Your task to perform on an android device: empty trash in google photos Image 0: 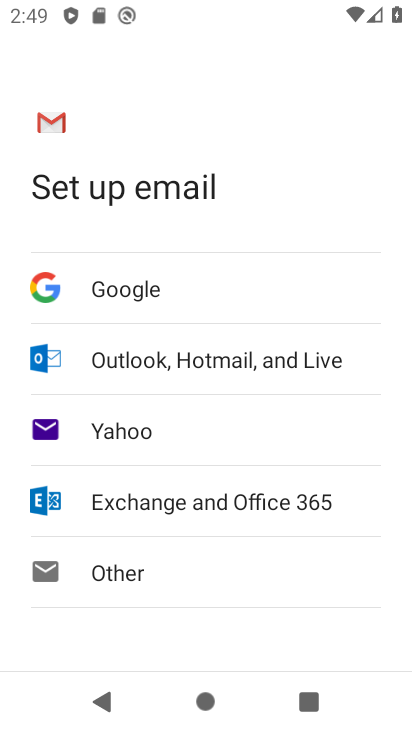
Step 0: press home button
Your task to perform on an android device: empty trash in google photos Image 1: 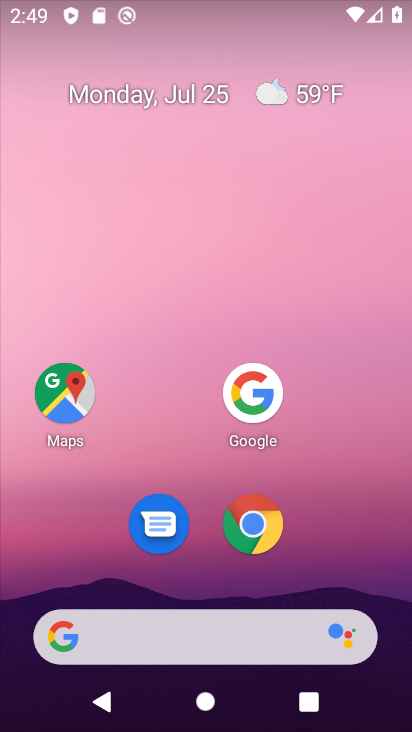
Step 1: drag from (227, 627) to (324, 202)
Your task to perform on an android device: empty trash in google photos Image 2: 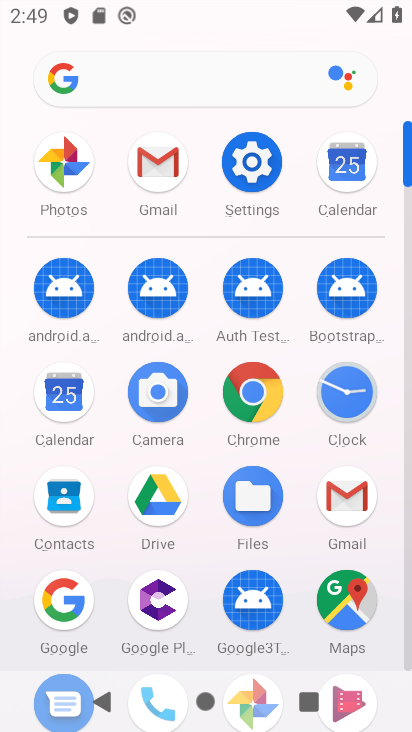
Step 2: click (59, 164)
Your task to perform on an android device: empty trash in google photos Image 3: 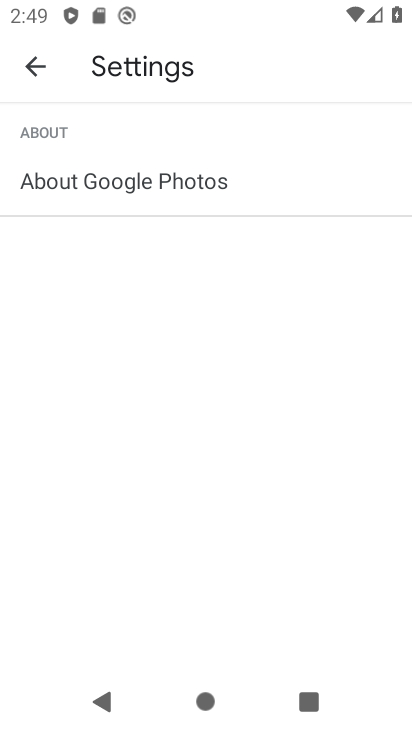
Step 3: click (38, 65)
Your task to perform on an android device: empty trash in google photos Image 4: 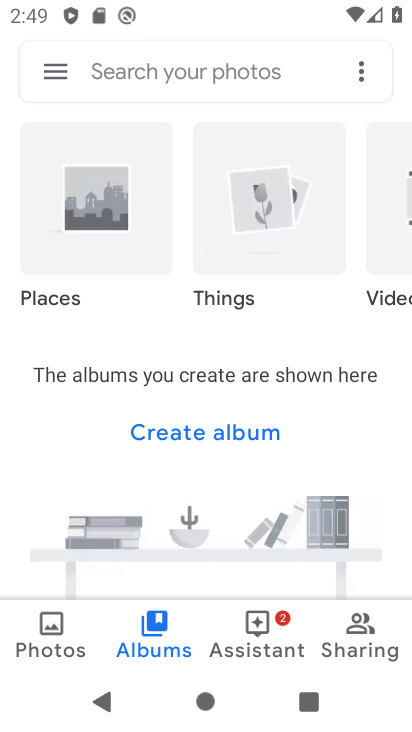
Step 4: click (39, 67)
Your task to perform on an android device: empty trash in google photos Image 5: 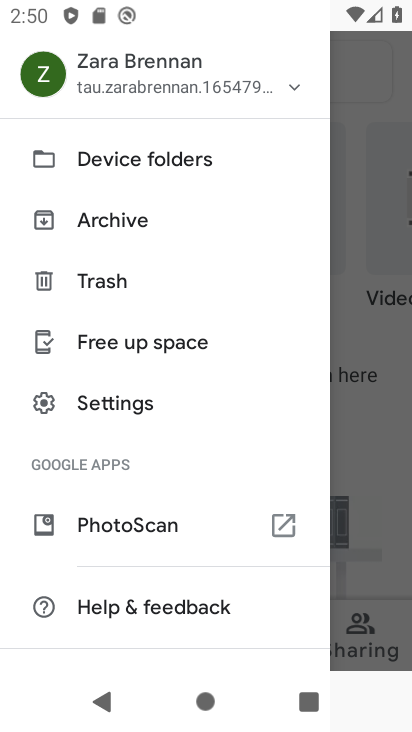
Step 5: click (123, 284)
Your task to perform on an android device: empty trash in google photos Image 6: 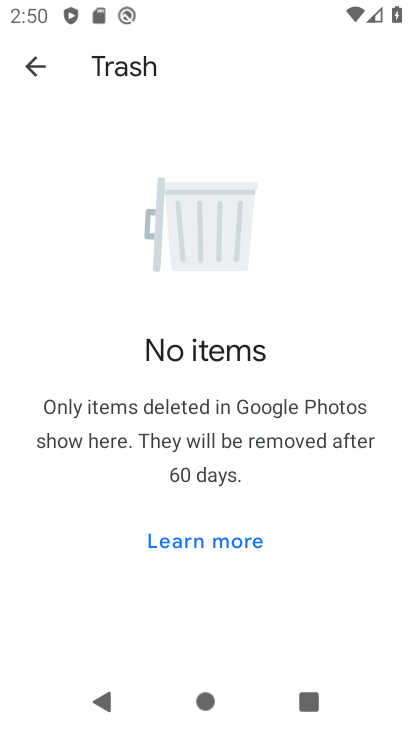
Step 6: task complete